Your task to perform on an android device: turn notification dots on Image 0: 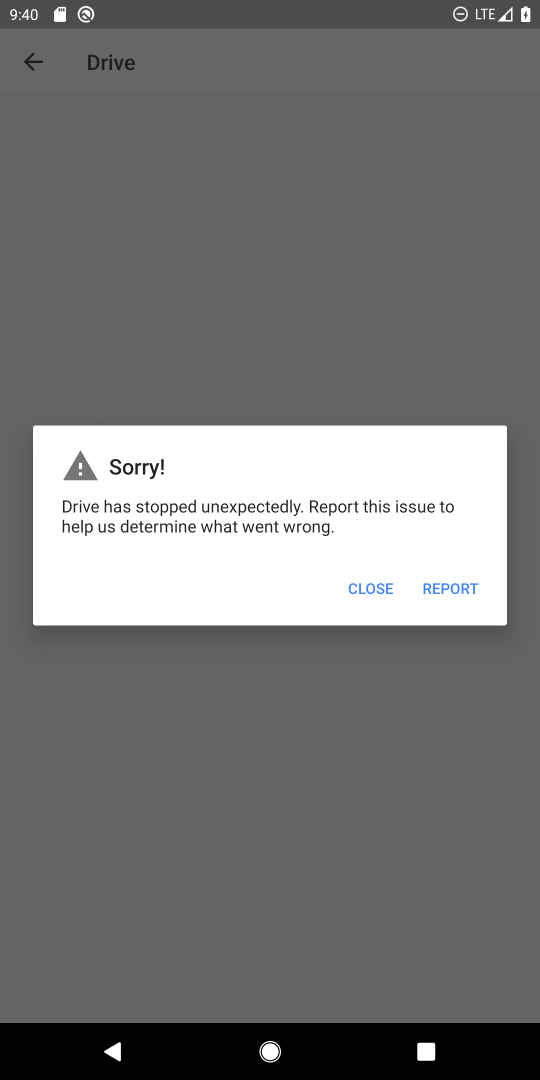
Step 0: press home button
Your task to perform on an android device: turn notification dots on Image 1: 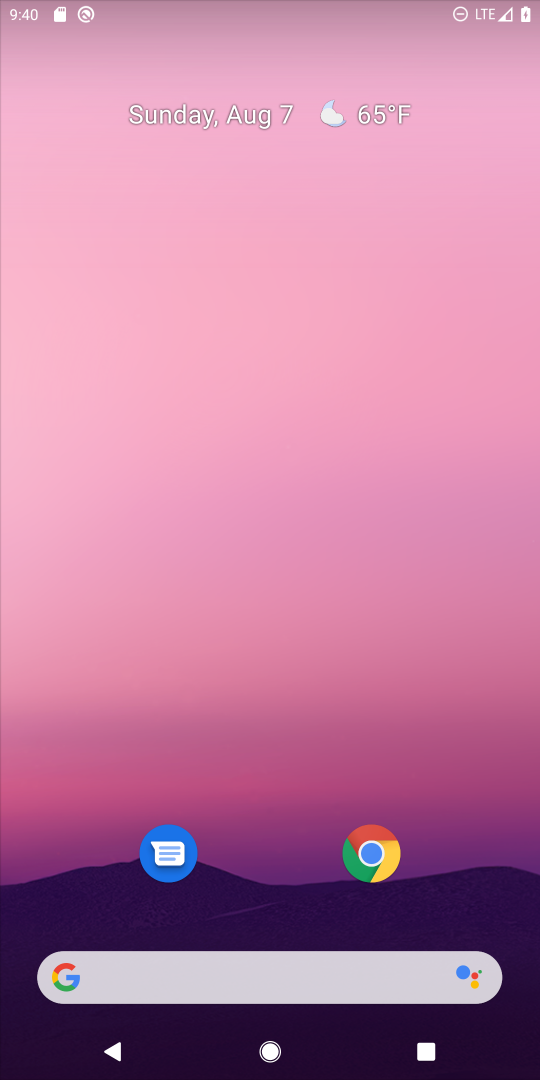
Step 1: drag from (262, 990) to (305, 371)
Your task to perform on an android device: turn notification dots on Image 2: 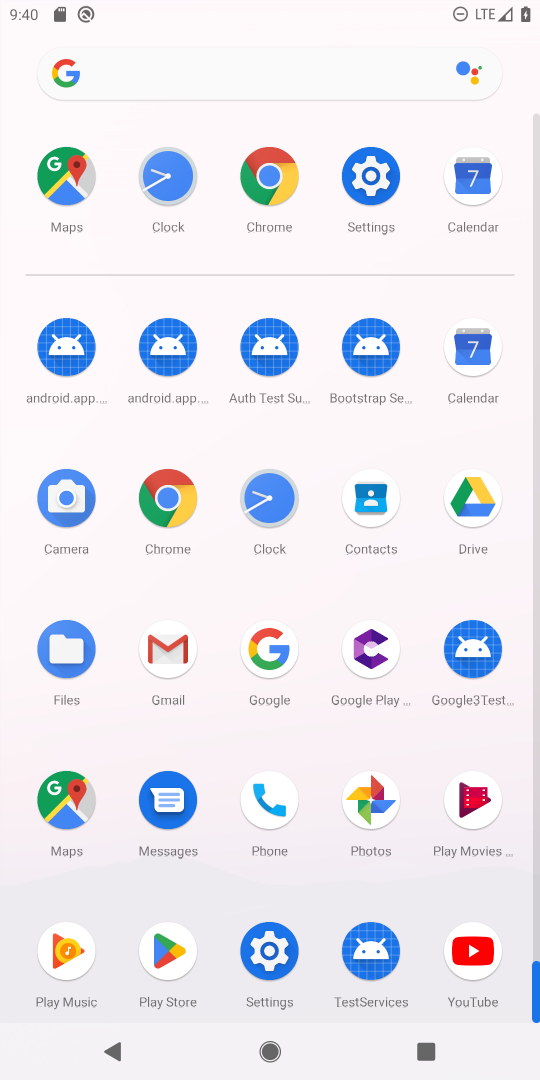
Step 2: click (376, 187)
Your task to perform on an android device: turn notification dots on Image 3: 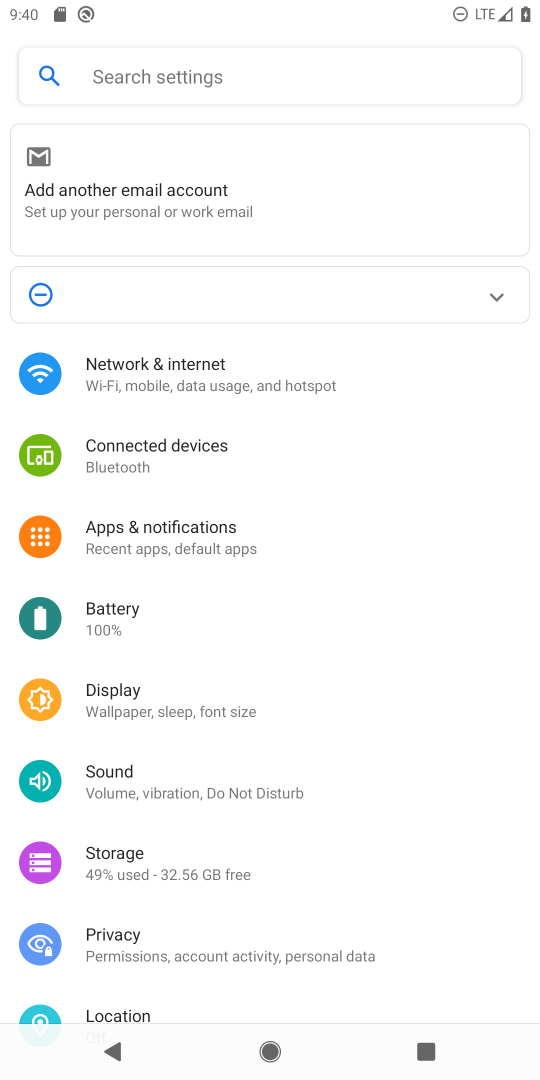
Step 3: click (288, 61)
Your task to perform on an android device: turn notification dots on Image 4: 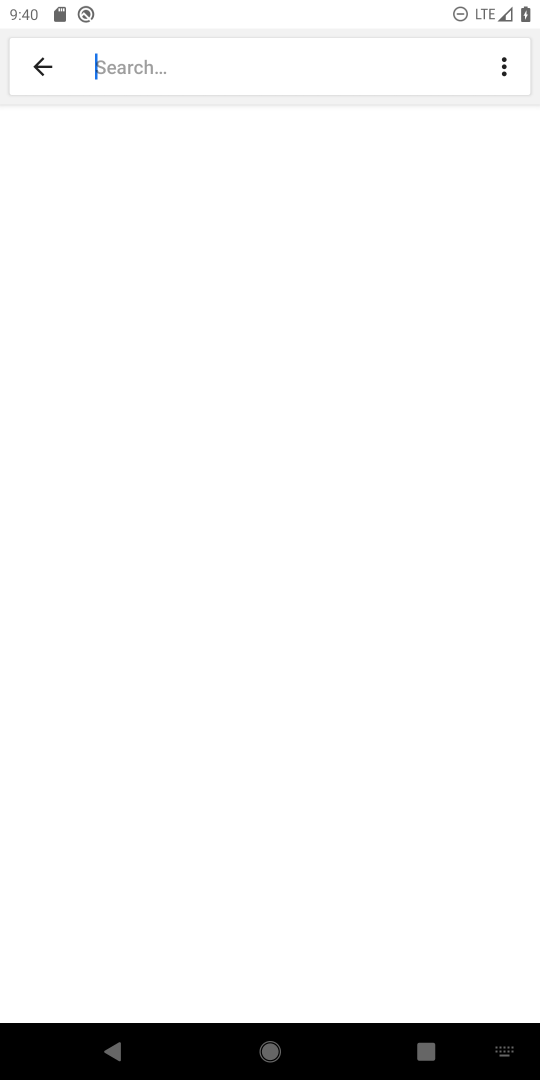
Step 4: type "notification dots "
Your task to perform on an android device: turn notification dots on Image 5: 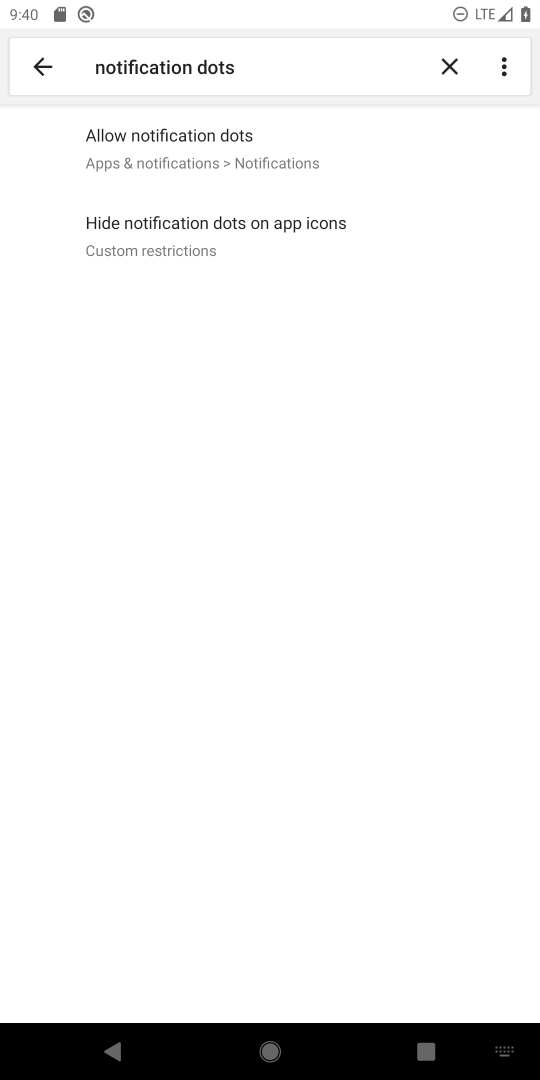
Step 5: click (204, 139)
Your task to perform on an android device: turn notification dots on Image 6: 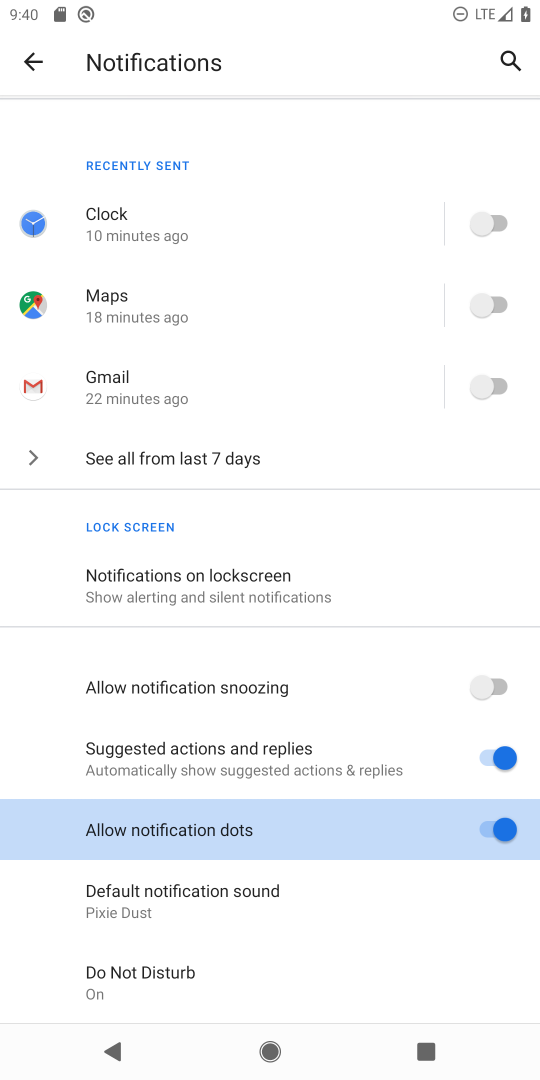
Step 6: task complete